Your task to perform on an android device: Is it going to rain tomorrow? Image 0: 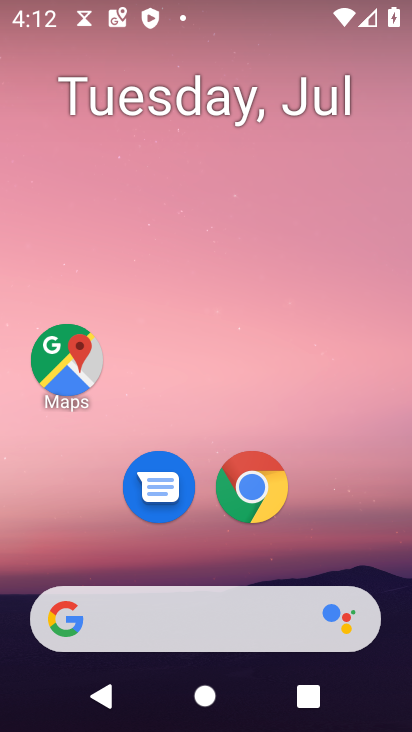
Step 0: click (136, 611)
Your task to perform on an android device: Is it going to rain tomorrow? Image 1: 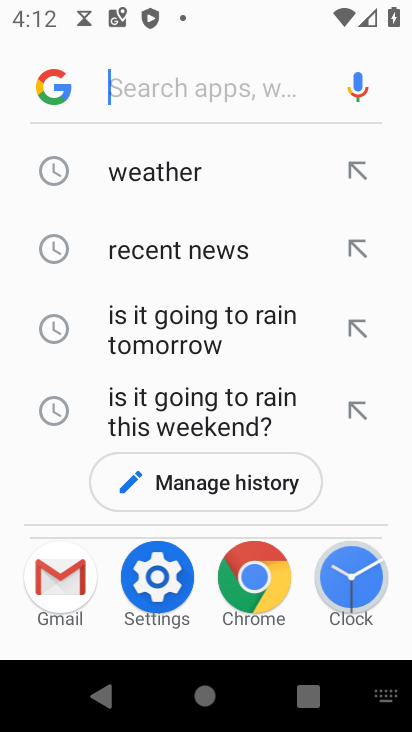
Step 1: click (159, 170)
Your task to perform on an android device: Is it going to rain tomorrow? Image 2: 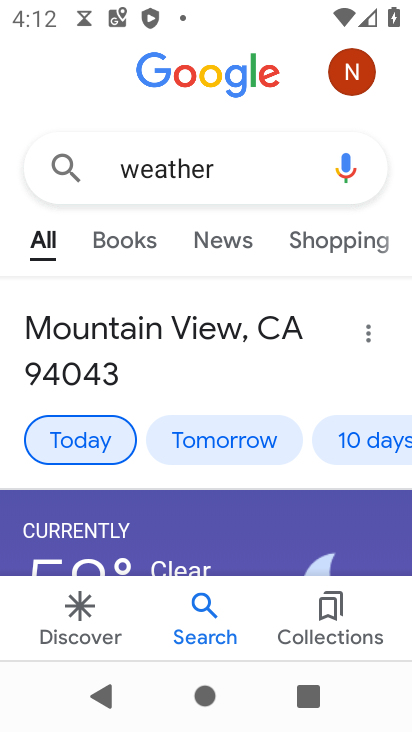
Step 2: click (206, 438)
Your task to perform on an android device: Is it going to rain tomorrow? Image 3: 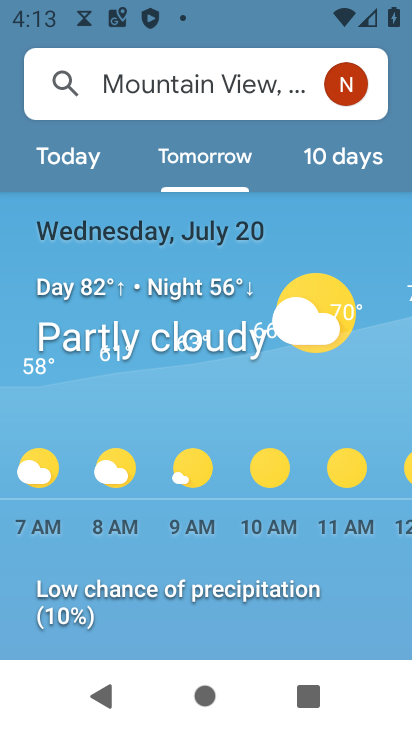
Step 3: task complete